Your task to perform on an android device: Go to Reddit.com Image 0: 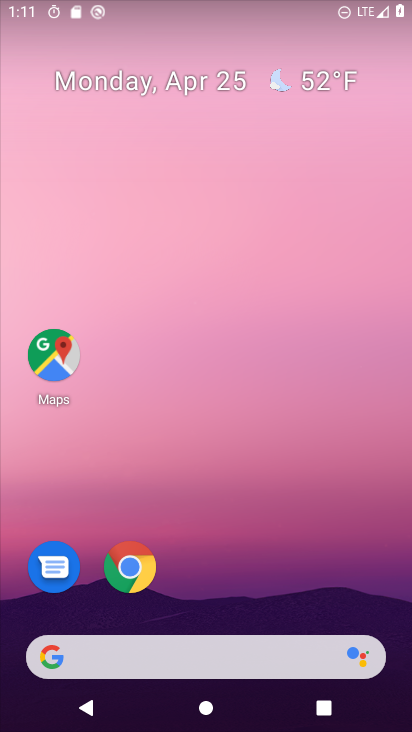
Step 0: click (279, 663)
Your task to perform on an android device: Go to Reddit.com Image 1: 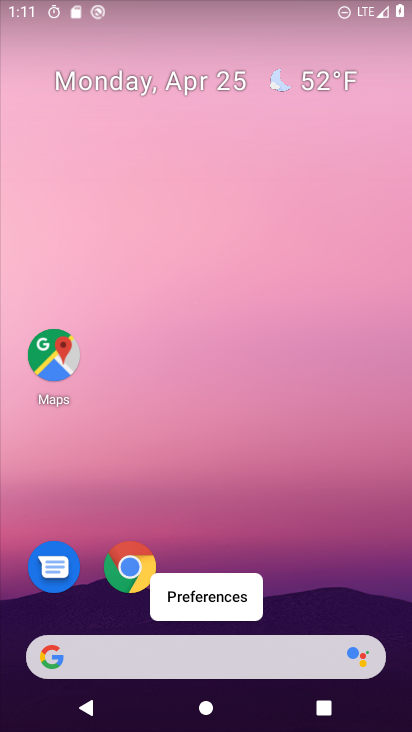
Step 1: click (279, 665)
Your task to perform on an android device: Go to Reddit.com Image 2: 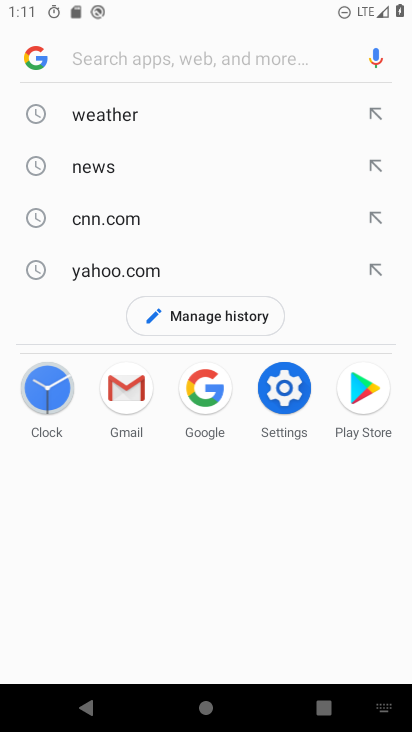
Step 2: type "reddit.com"
Your task to perform on an android device: Go to Reddit.com Image 3: 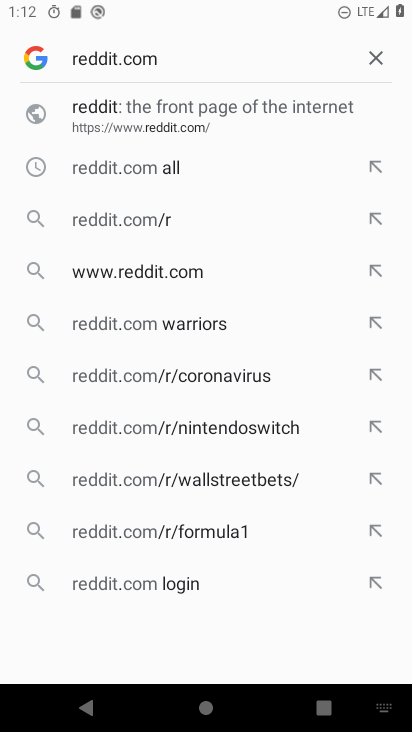
Step 3: click (293, 113)
Your task to perform on an android device: Go to Reddit.com Image 4: 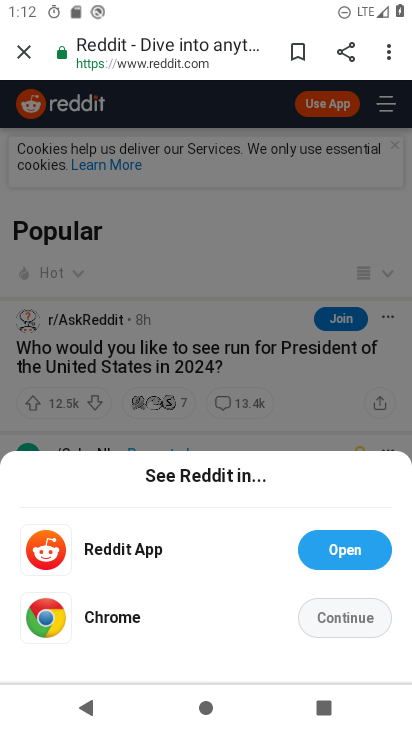
Step 4: task complete